Your task to perform on an android device: toggle pop-ups in chrome Image 0: 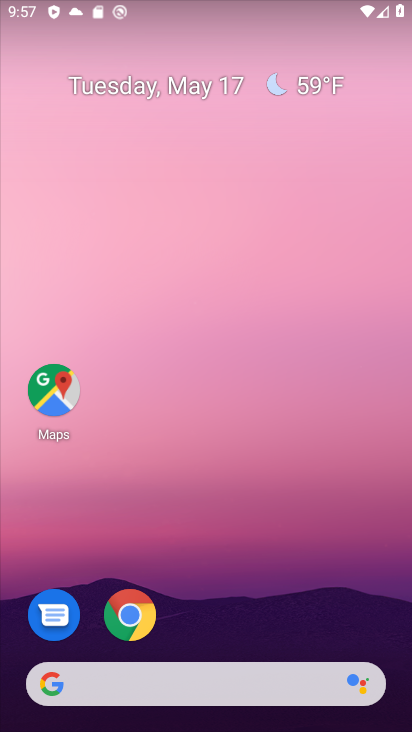
Step 0: click (131, 622)
Your task to perform on an android device: toggle pop-ups in chrome Image 1: 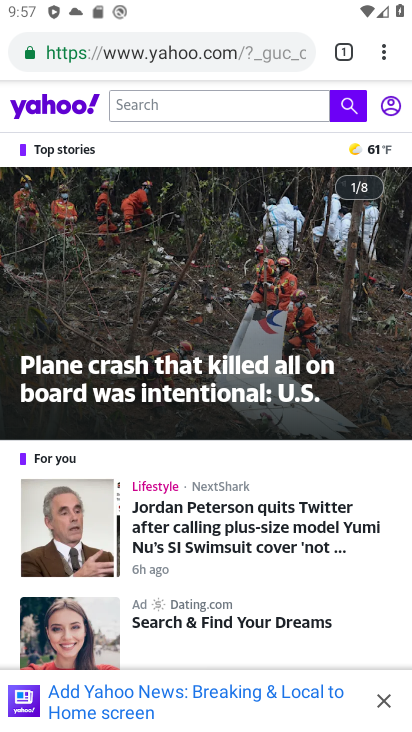
Step 1: click (380, 54)
Your task to perform on an android device: toggle pop-ups in chrome Image 2: 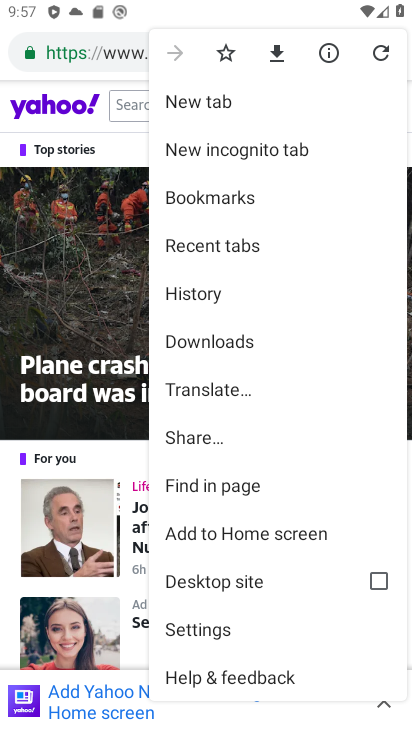
Step 2: click (214, 631)
Your task to perform on an android device: toggle pop-ups in chrome Image 3: 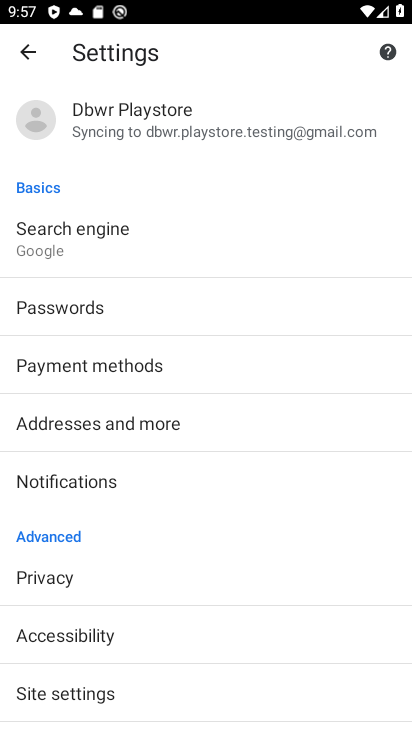
Step 3: drag from (136, 689) to (114, 525)
Your task to perform on an android device: toggle pop-ups in chrome Image 4: 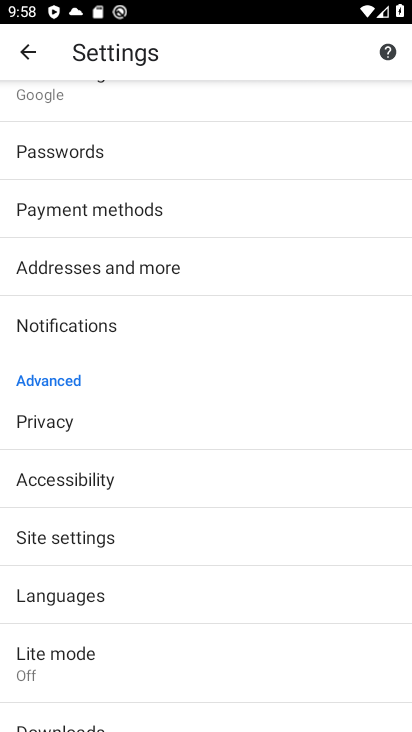
Step 4: click (93, 541)
Your task to perform on an android device: toggle pop-ups in chrome Image 5: 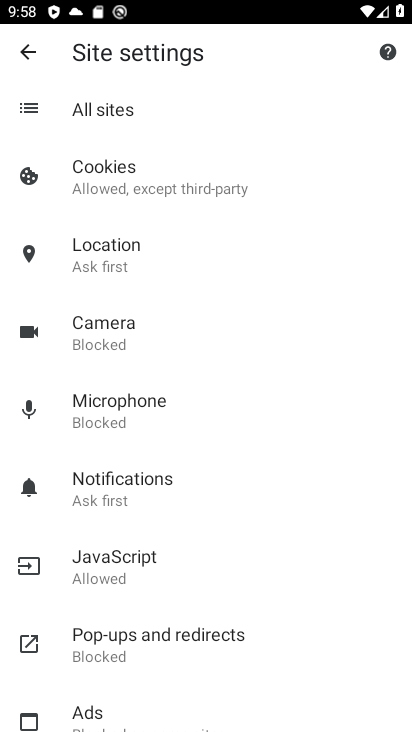
Step 5: click (152, 627)
Your task to perform on an android device: toggle pop-ups in chrome Image 6: 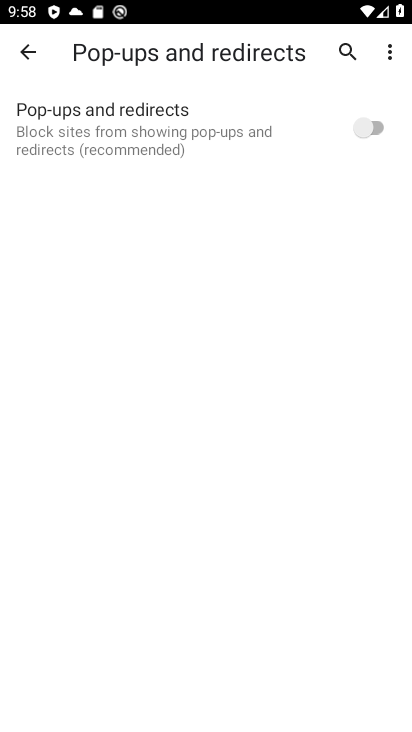
Step 6: click (378, 131)
Your task to perform on an android device: toggle pop-ups in chrome Image 7: 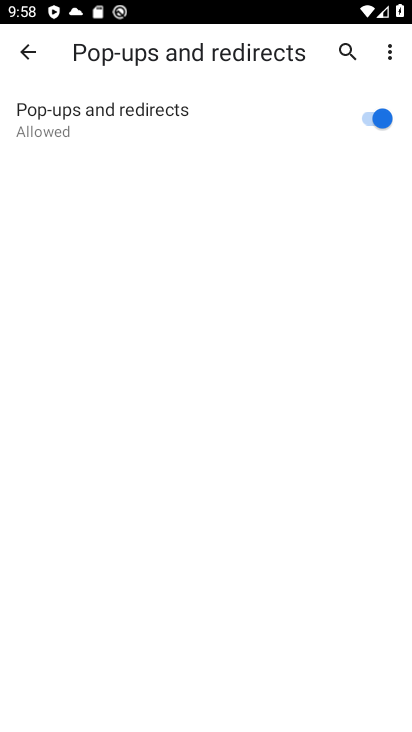
Step 7: task complete